Your task to perform on an android device: check out phone information Image 0: 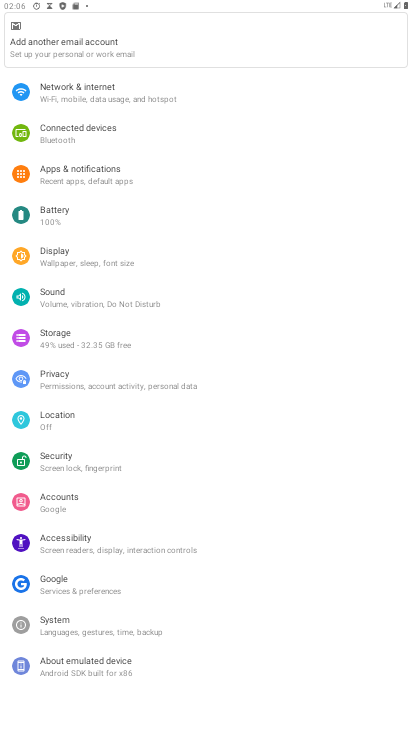
Step 0: click (136, 669)
Your task to perform on an android device: check out phone information Image 1: 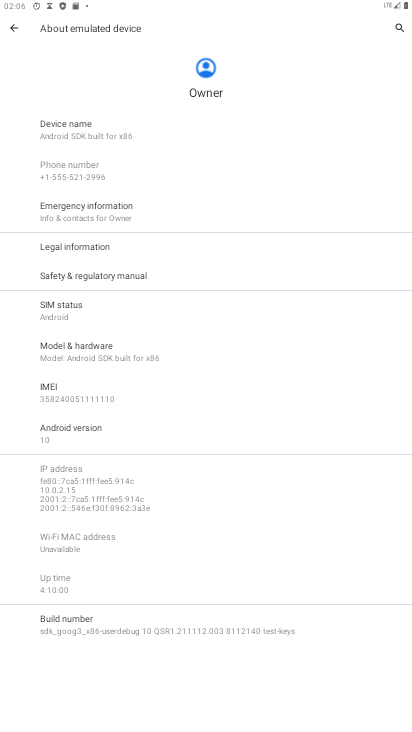
Step 1: task complete